Your task to perform on an android device: Do I have any events this weekend? Image 0: 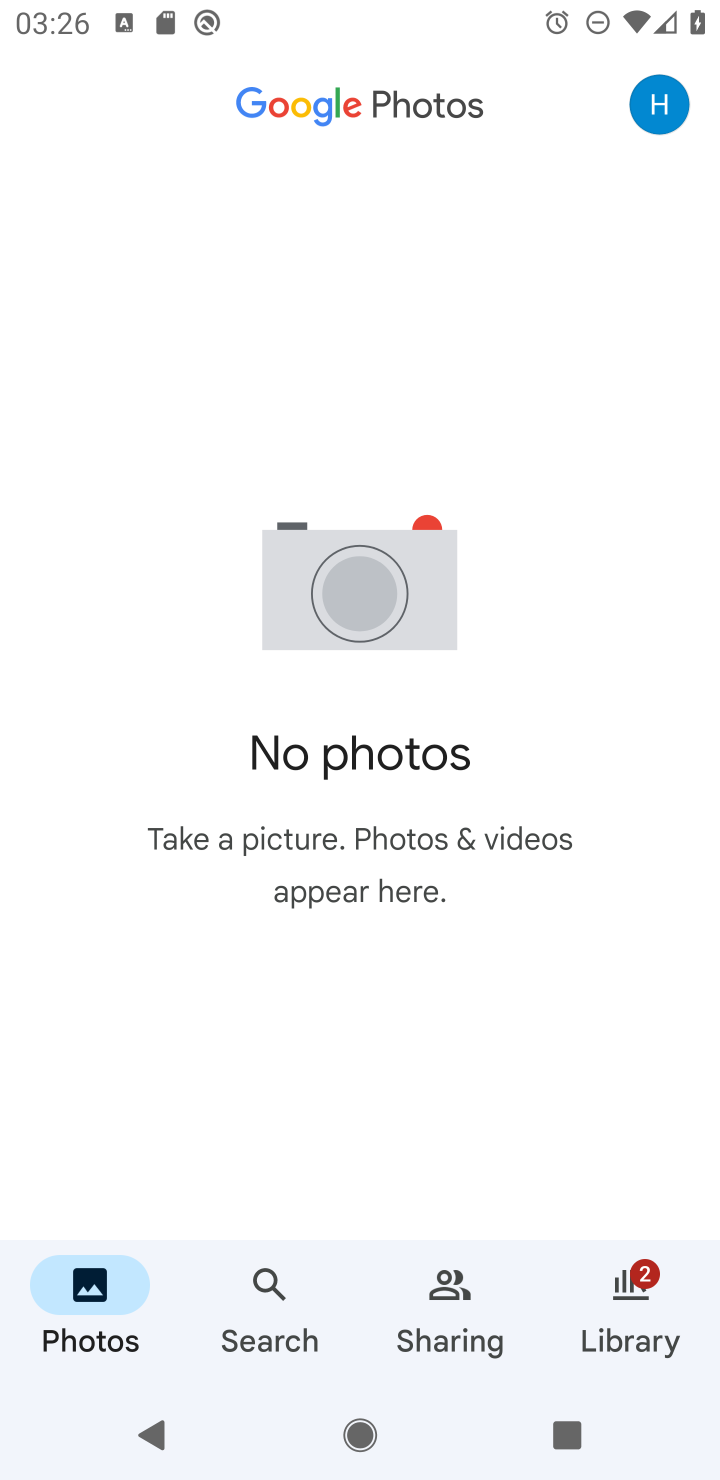
Step 0: press home button
Your task to perform on an android device: Do I have any events this weekend? Image 1: 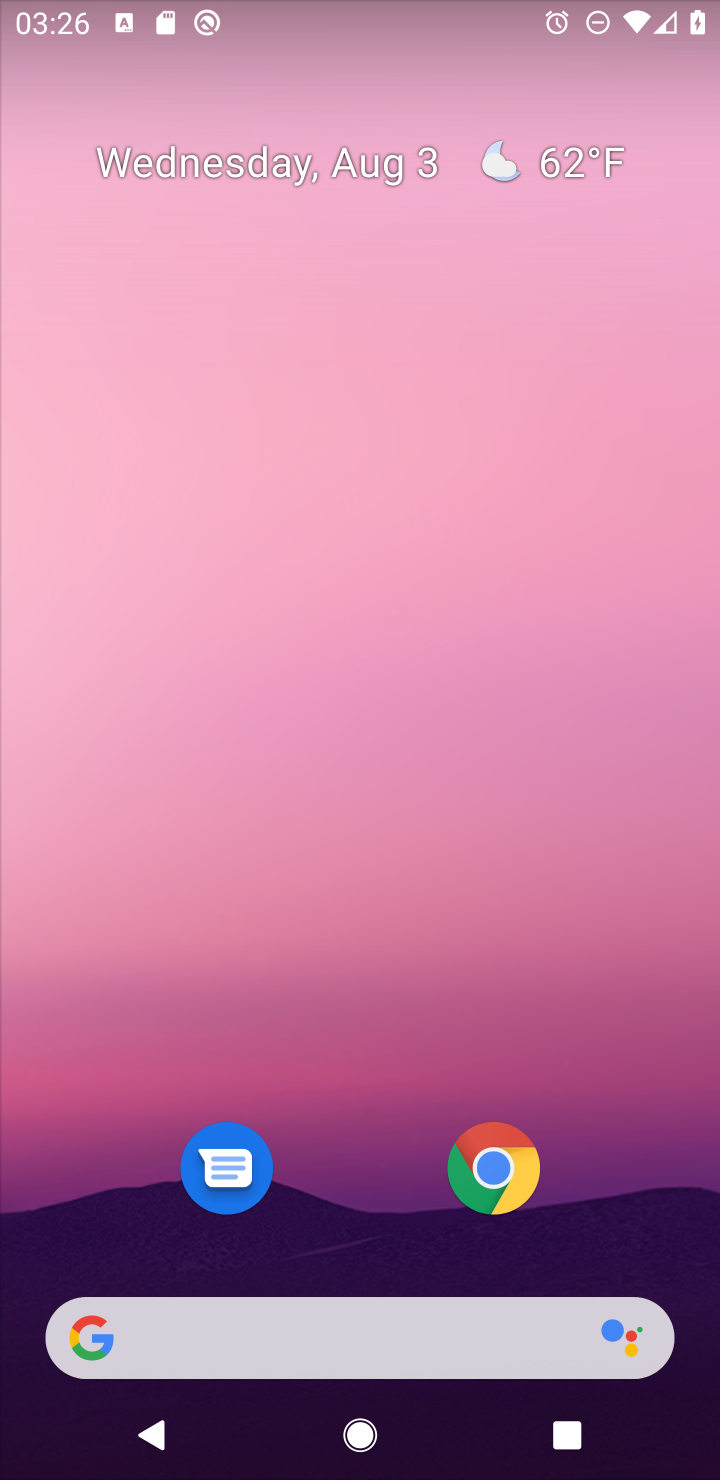
Step 1: drag from (677, 1242) to (584, 240)
Your task to perform on an android device: Do I have any events this weekend? Image 2: 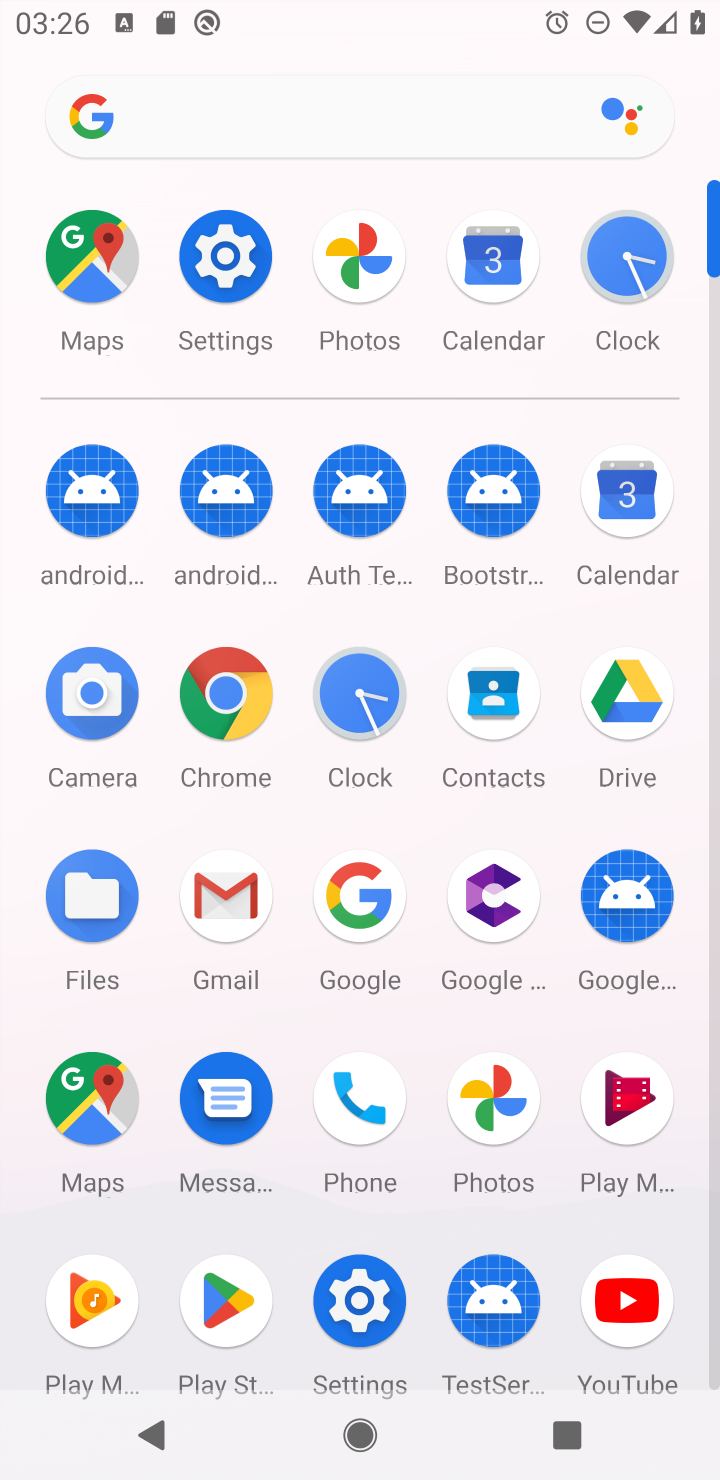
Step 2: click (627, 501)
Your task to perform on an android device: Do I have any events this weekend? Image 3: 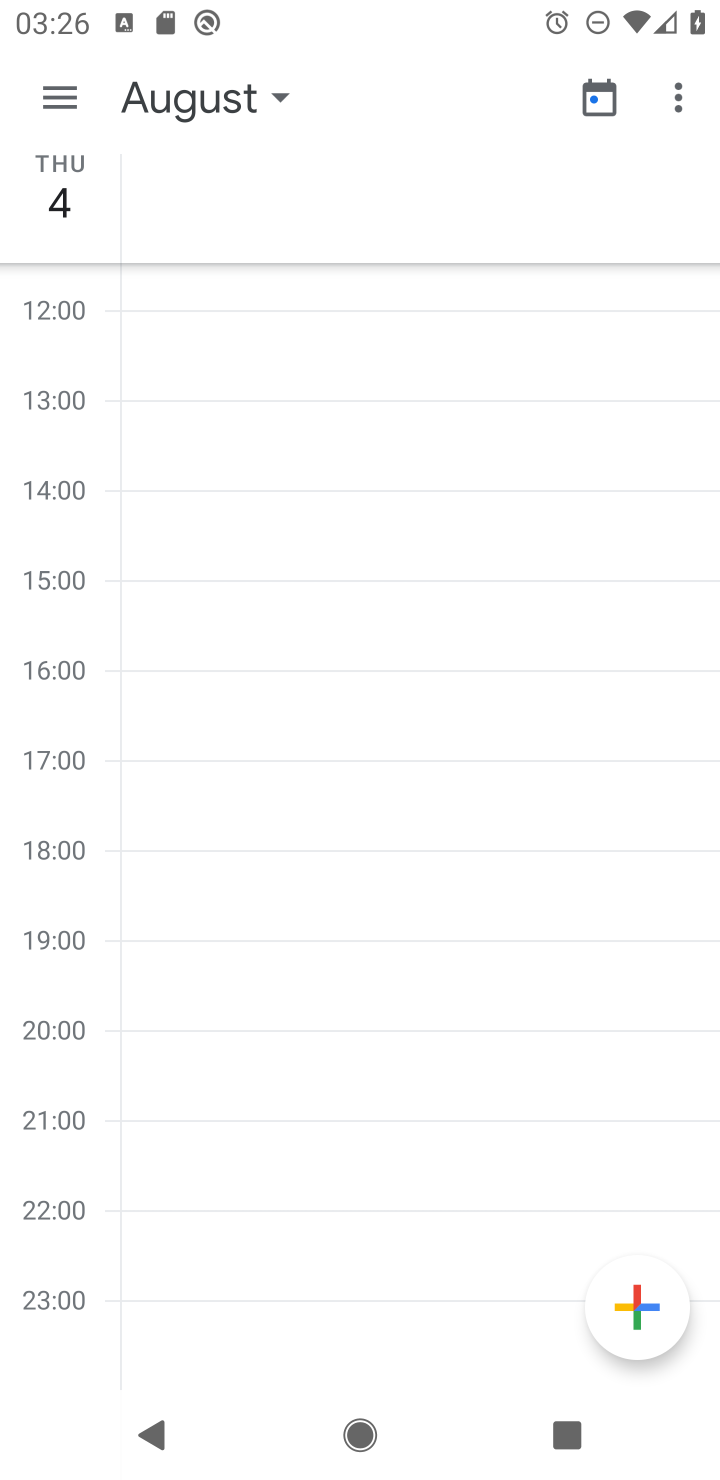
Step 3: click (63, 86)
Your task to perform on an android device: Do I have any events this weekend? Image 4: 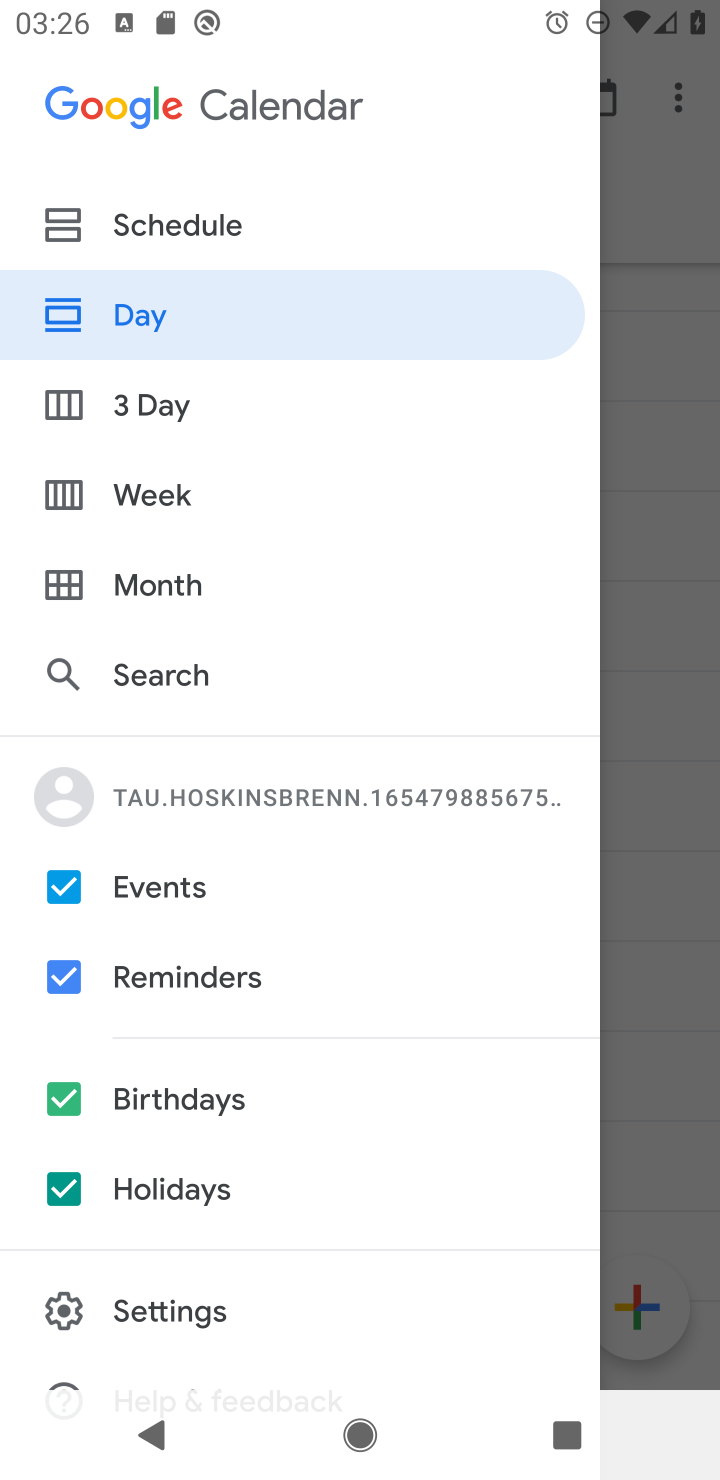
Step 4: click (162, 495)
Your task to perform on an android device: Do I have any events this weekend? Image 5: 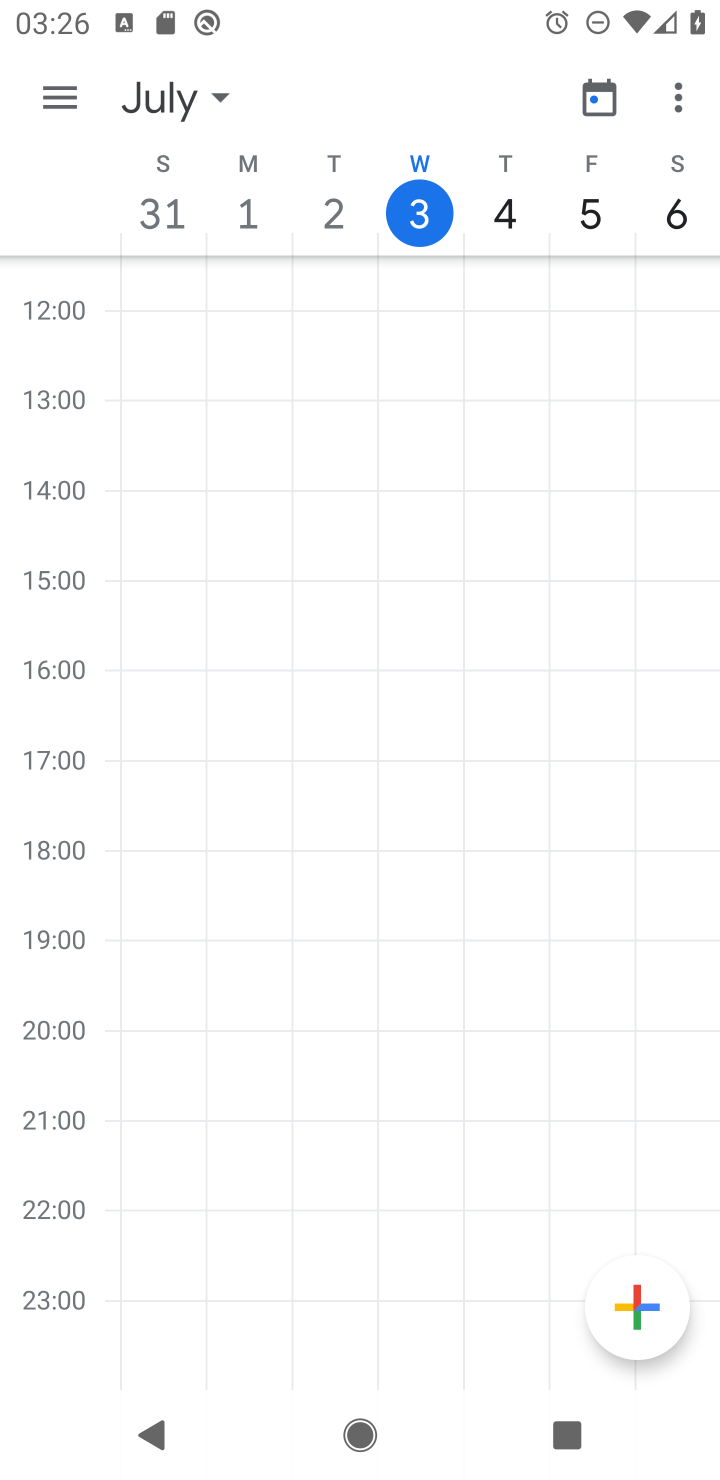
Step 5: task complete